Your task to perform on an android device: Go to Google Image 0: 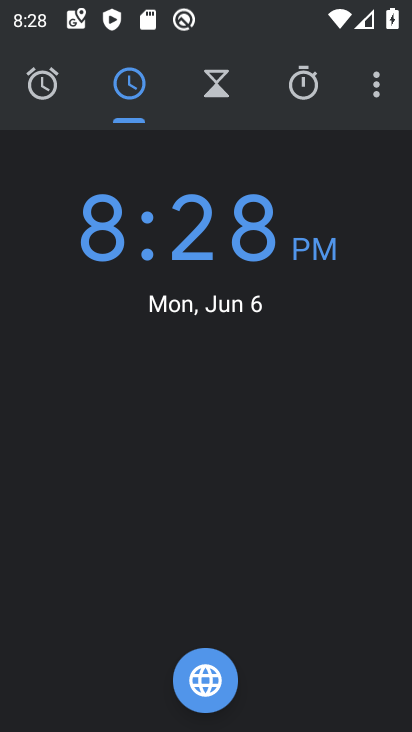
Step 0: press home button
Your task to perform on an android device: Go to Google Image 1: 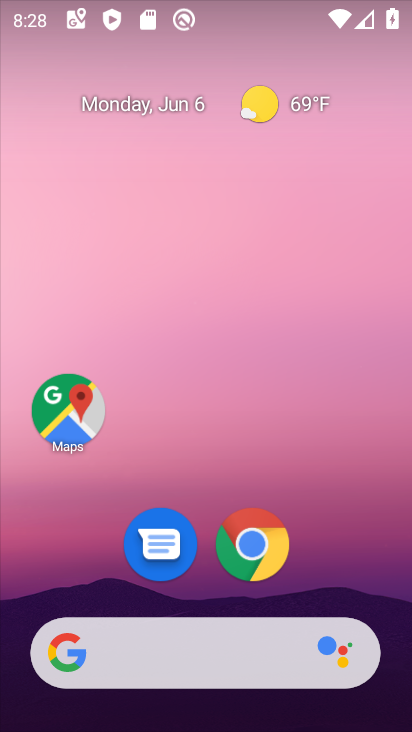
Step 1: drag from (208, 562) to (215, 251)
Your task to perform on an android device: Go to Google Image 2: 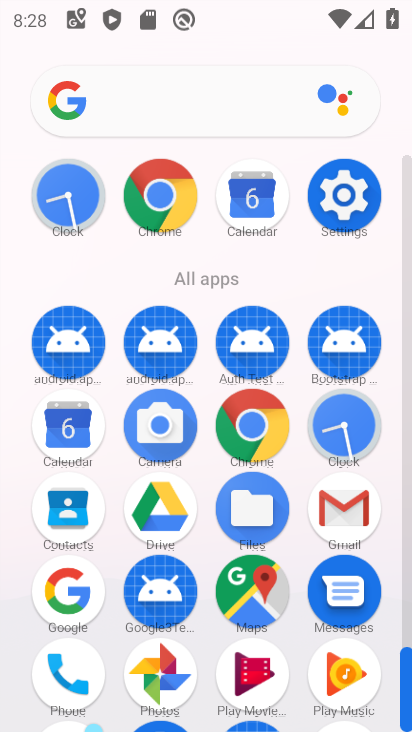
Step 2: click (72, 581)
Your task to perform on an android device: Go to Google Image 3: 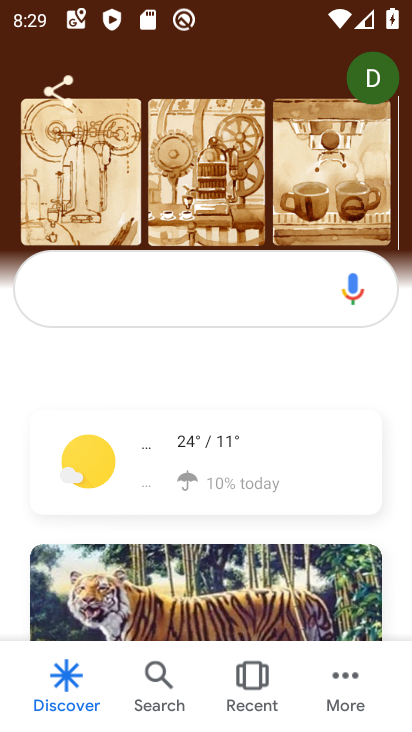
Step 3: task complete